Your task to perform on an android device: Open my contact list Image 0: 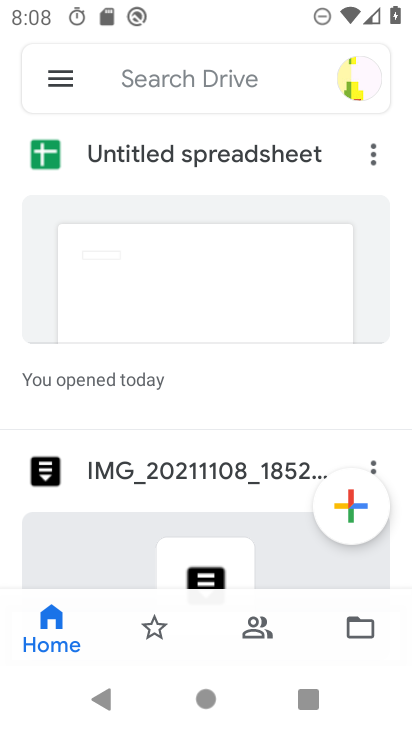
Step 0: press home button
Your task to perform on an android device: Open my contact list Image 1: 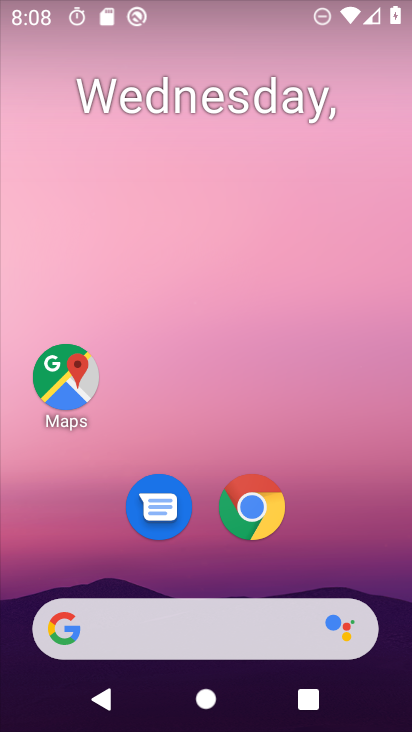
Step 1: drag from (295, 668) to (237, 354)
Your task to perform on an android device: Open my contact list Image 2: 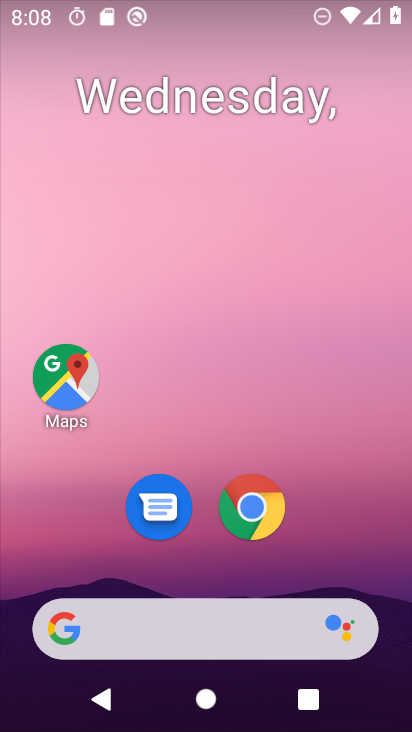
Step 2: drag from (250, 648) to (188, 118)
Your task to perform on an android device: Open my contact list Image 3: 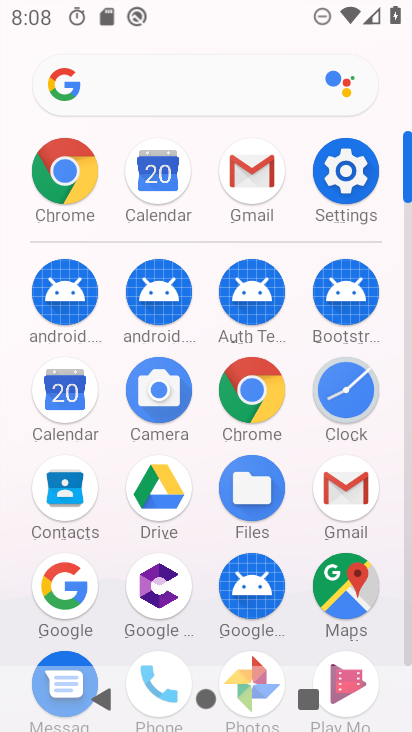
Step 3: drag from (204, 547) to (180, 328)
Your task to perform on an android device: Open my contact list Image 4: 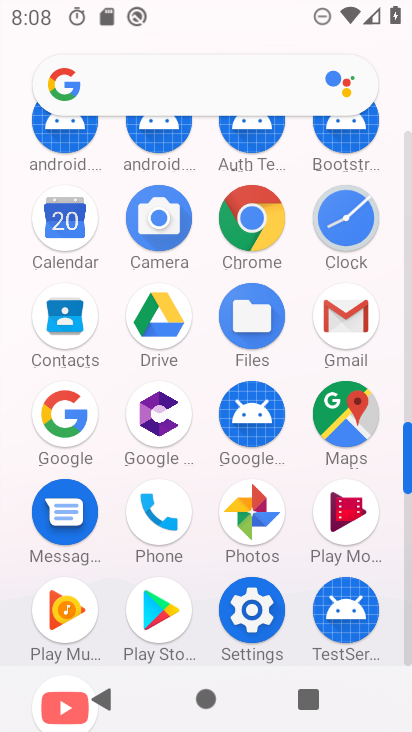
Step 4: click (158, 523)
Your task to perform on an android device: Open my contact list Image 5: 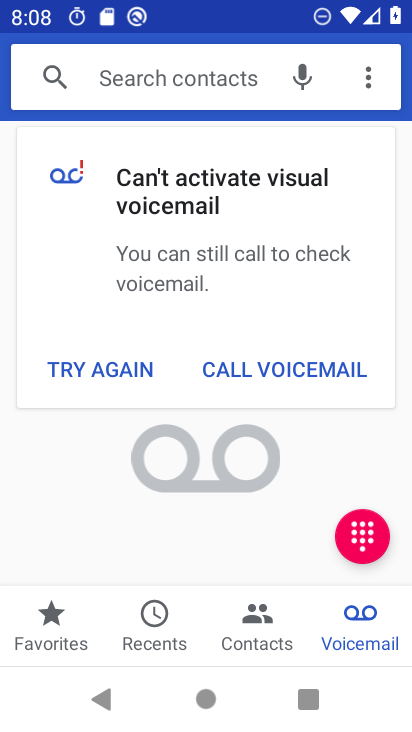
Step 5: click (256, 629)
Your task to perform on an android device: Open my contact list Image 6: 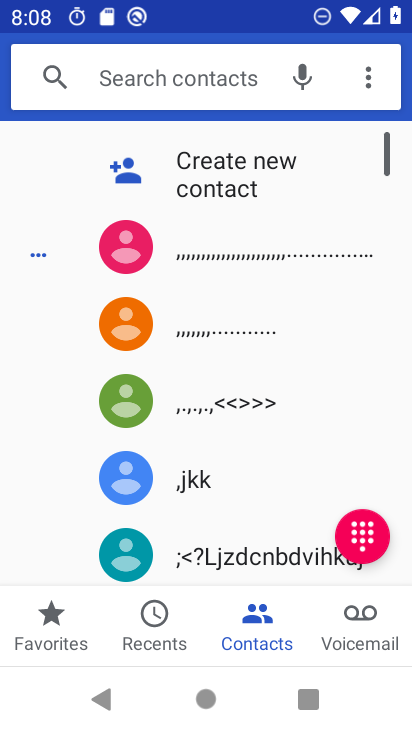
Step 6: task complete